Your task to perform on an android device: What's the weather going to be tomorrow? Image 0: 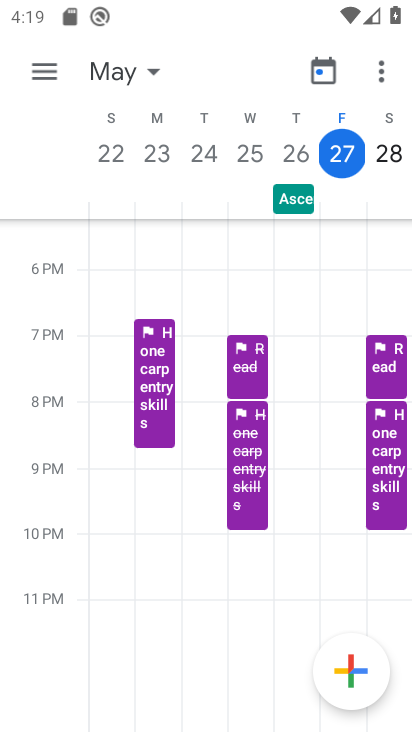
Step 0: press home button
Your task to perform on an android device: What's the weather going to be tomorrow? Image 1: 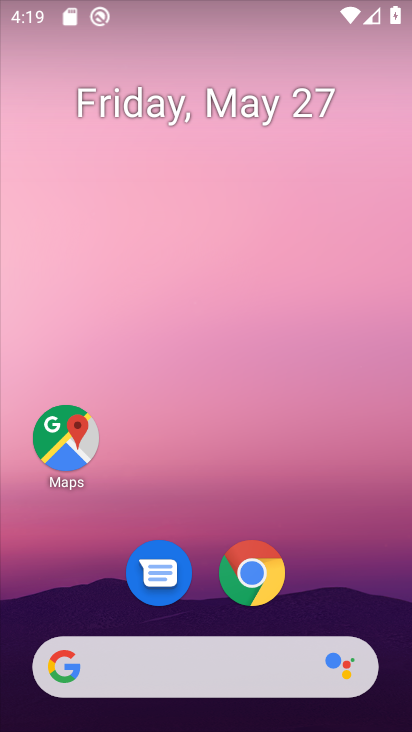
Step 1: click (252, 653)
Your task to perform on an android device: What's the weather going to be tomorrow? Image 2: 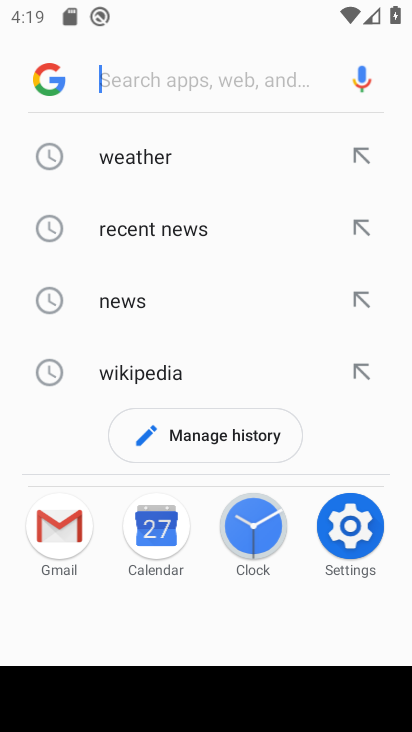
Step 2: click (140, 153)
Your task to perform on an android device: What's the weather going to be tomorrow? Image 3: 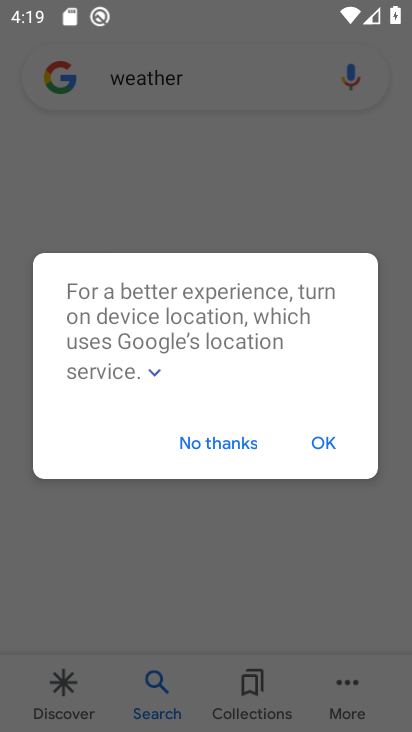
Step 3: click (316, 436)
Your task to perform on an android device: What's the weather going to be tomorrow? Image 4: 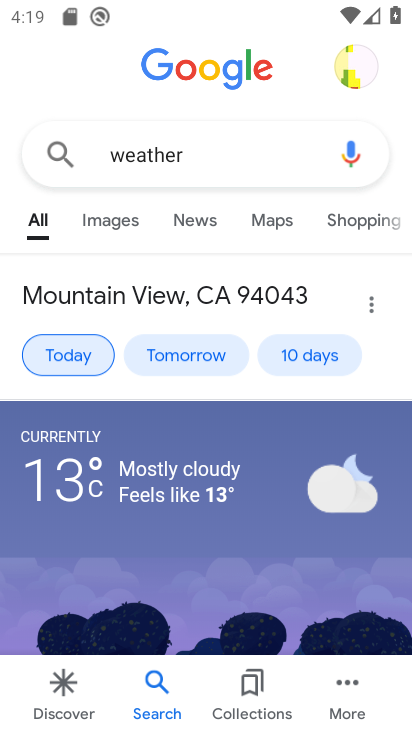
Step 4: click (83, 364)
Your task to perform on an android device: What's the weather going to be tomorrow? Image 5: 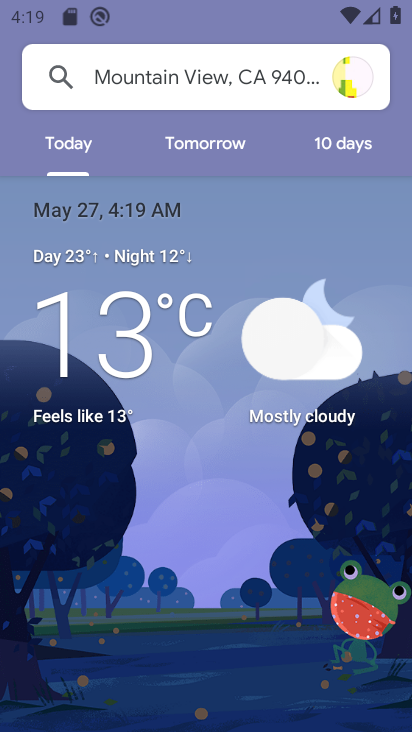
Step 5: click (203, 147)
Your task to perform on an android device: What's the weather going to be tomorrow? Image 6: 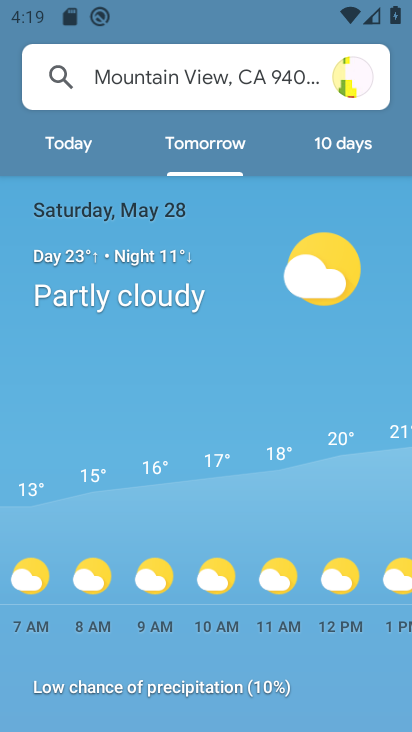
Step 6: task complete